Your task to perform on an android device: Go to ESPN.com Image 0: 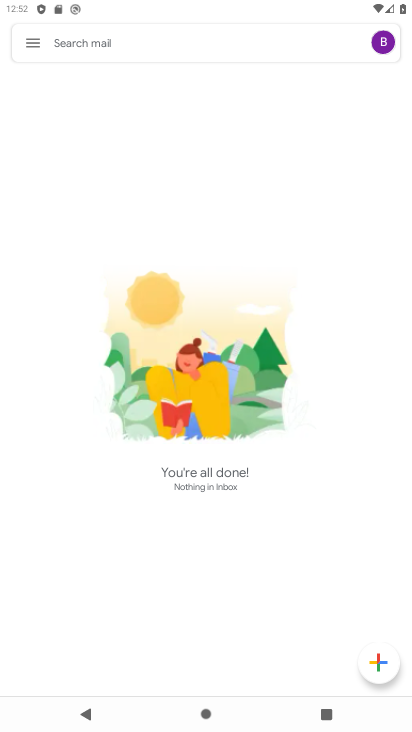
Step 0: press home button
Your task to perform on an android device: Go to ESPN.com Image 1: 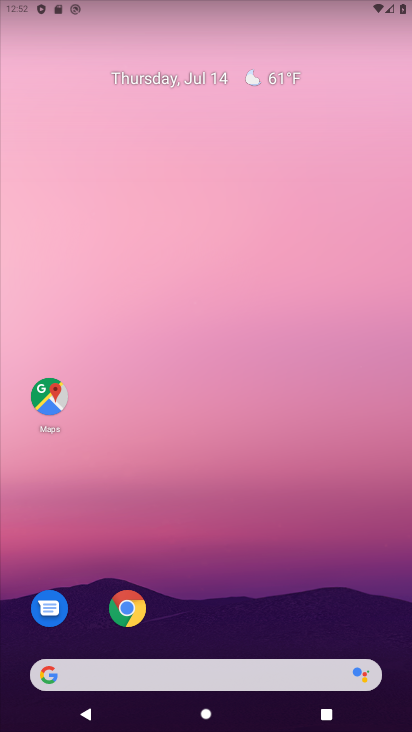
Step 1: drag from (339, 590) to (318, 82)
Your task to perform on an android device: Go to ESPN.com Image 2: 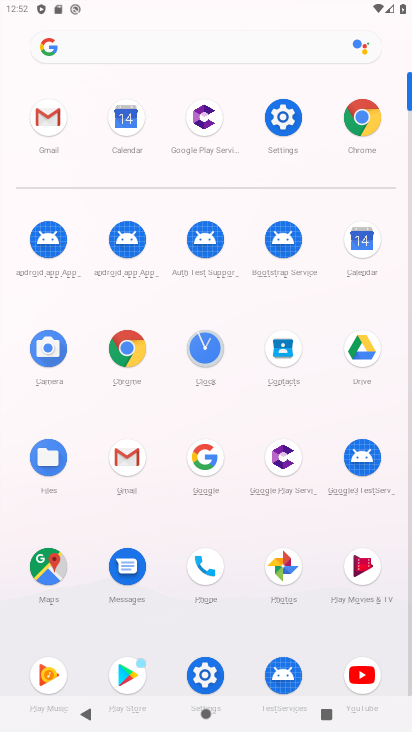
Step 2: click (136, 351)
Your task to perform on an android device: Go to ESPN.com Image 3: 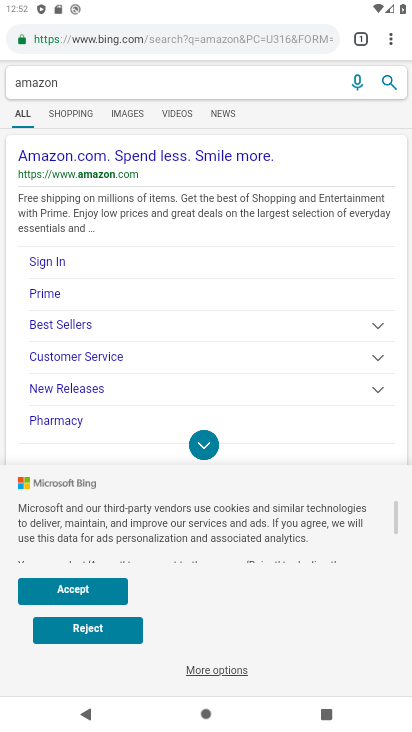
Step 3: click (212, 39)
Your task to perform on an android device: Go to ESPN.com Image 4: 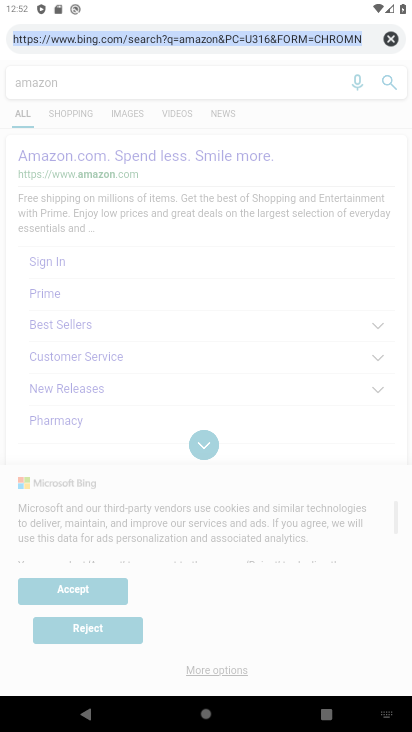
Step 4: type "espn.com"
Your task to perform on an android device: Go to ESPN.com Image 5: 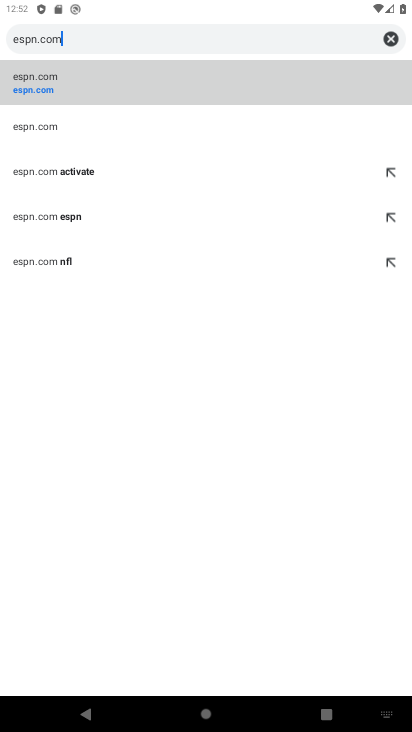
Step 5: click (148, 85)
Your task to perform on an android device: Go to ESPN.com Image 6: 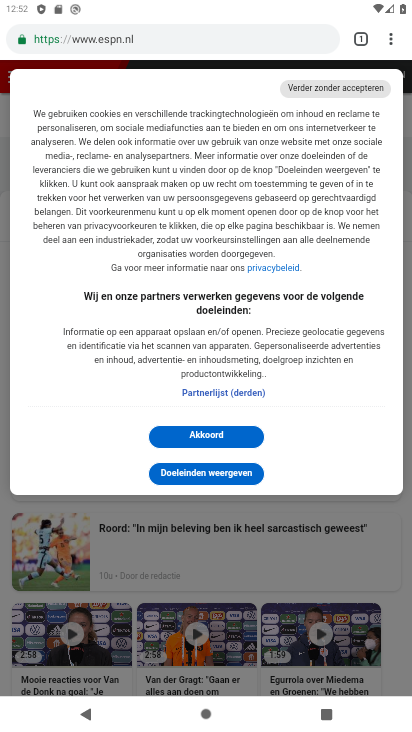
Step 6: task complete